Your task to perform on an android device: find snoozed emails in the gmail app Image 0: 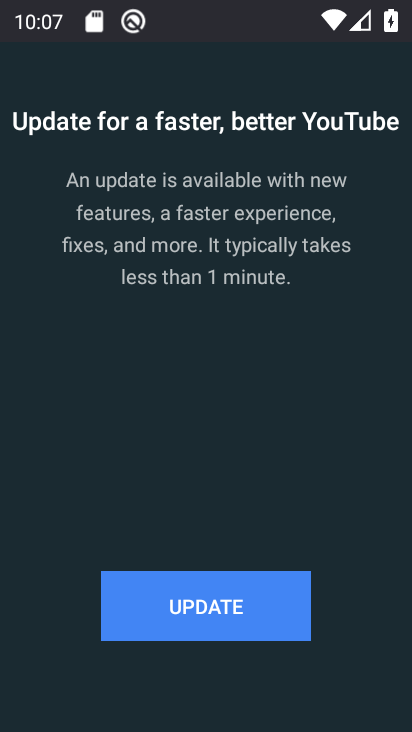
Step 0: press home button
Your task to perform on an android device: find snoozed emails in the gmail app Image 1: 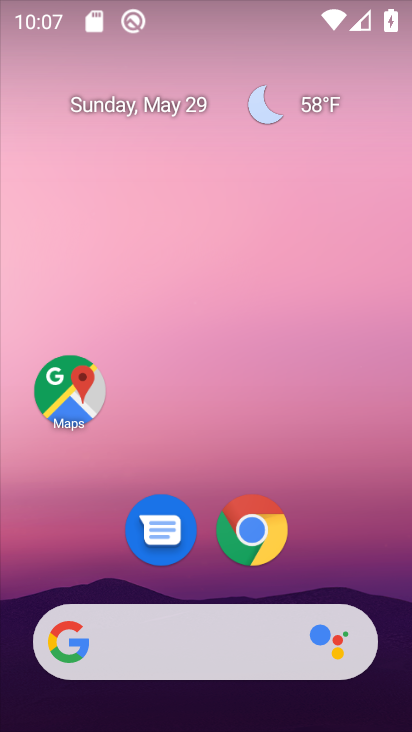
Step 1: drag from (190, 611) to (228, 183)
Your task to perform on an android device: find snoozed emails in the gmail app Image 2: 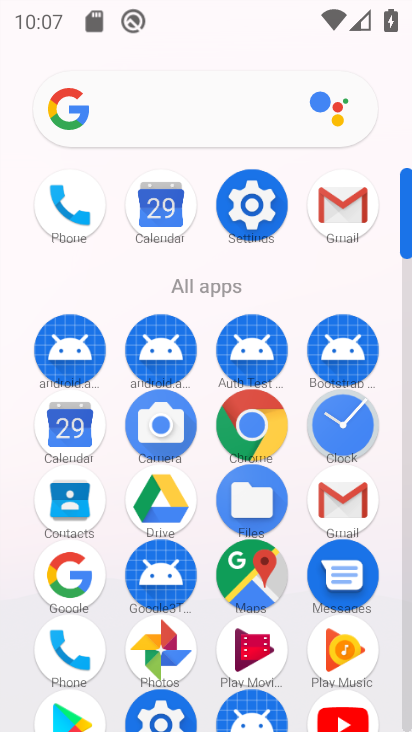
Step 2: click (357, 513)
Your task to perform on an android device: find snoozed emails in the gmail app Image 3: 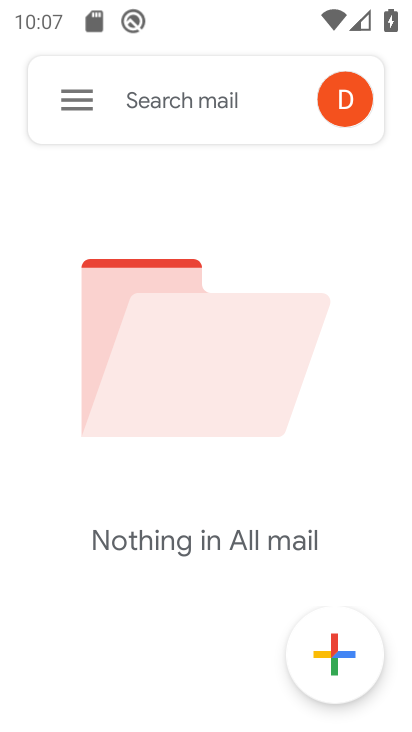
Step 3: click (69, 108)
Your task to perform on an android device: find snoozed emails in the gmail app Image 4: 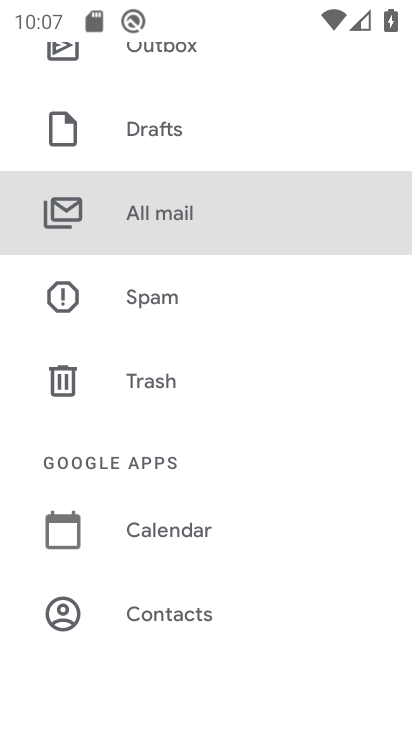
Step 4: drag from (198, 175) to (189, 607)
Your task to perform on an android device: find snoozed emails in the gmail app Image 5: 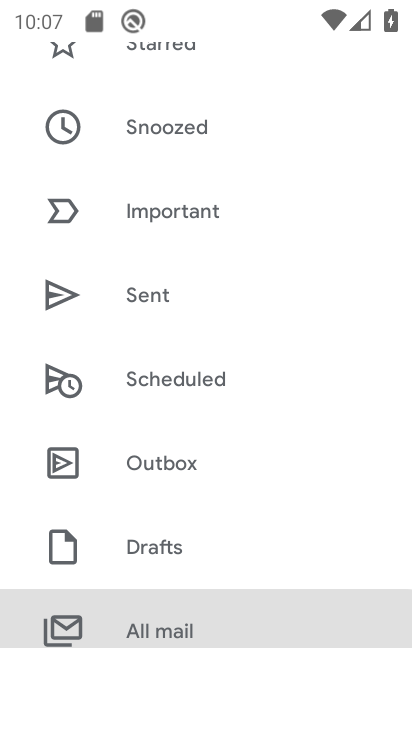
Step 5: click (209, 123)
Your task to perform on an android device: find snoozed emails in the gmail app Image 6: 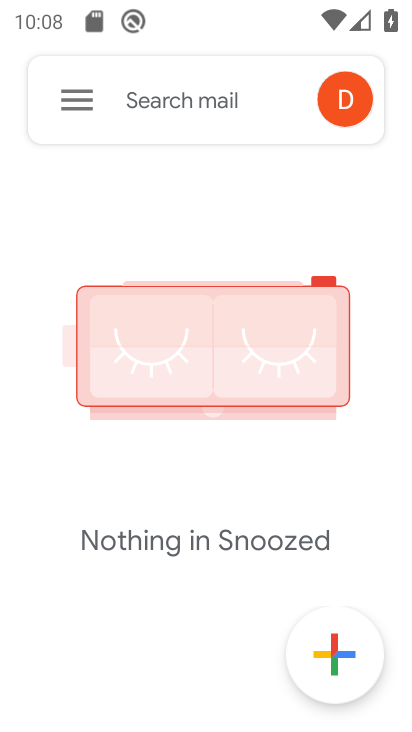
Step 6: task complete